Your task to perform on an android device: turn off picture-in-picture Image 0: 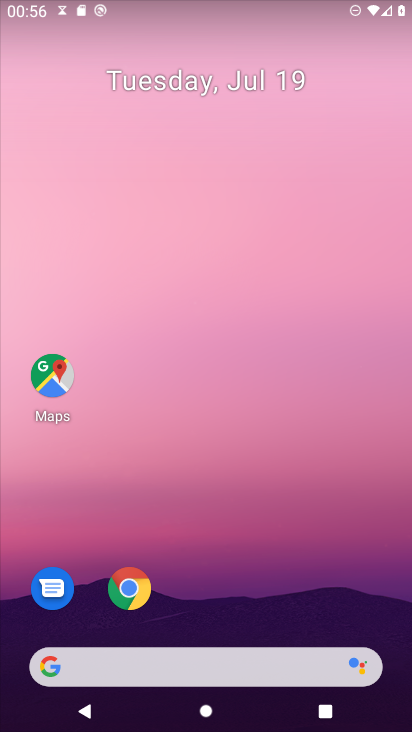
Step 0: press home button
Your task to perform on an android device: turn off picture-in-picture Image 1: 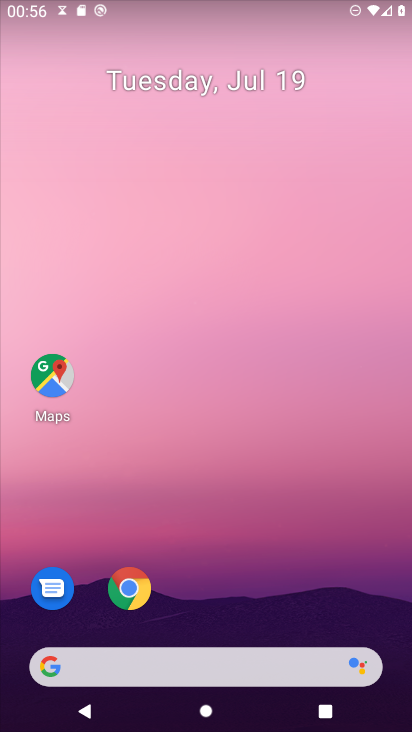
Step 1: drag from (129, 594) to (240, 442)
Your task to perform on an android device: turn off picture-in-picture Image 2: 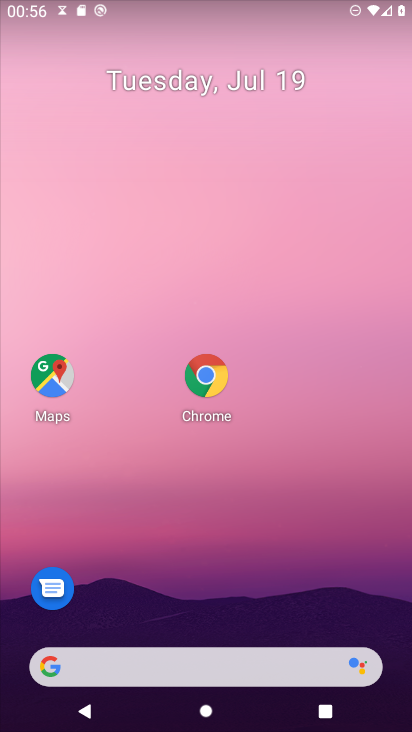
Step 2: click (200, 363)
Your task to perform on an android device: turn off picture-in-picture Image 3: 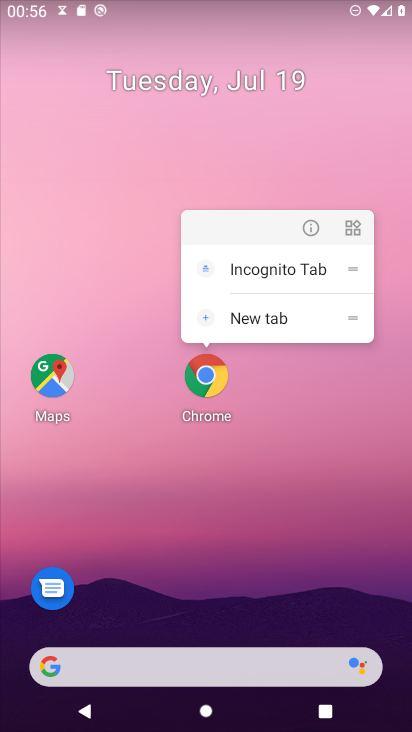
Step 3: click (316, 225)
Your task to perform on an android device: turn off picture-in-picture Image 4: 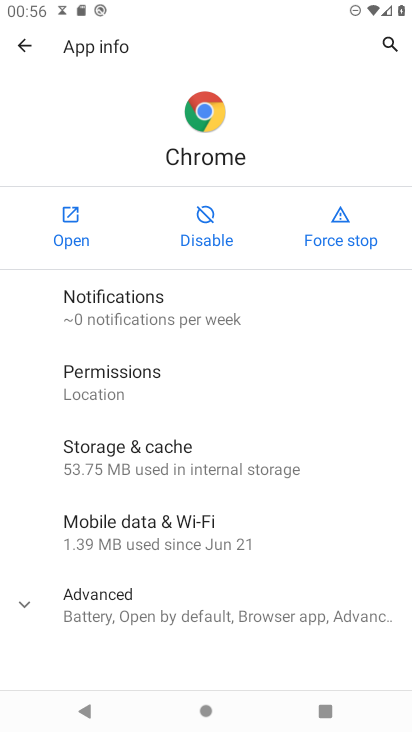
Step 4: click (19, 598)
Your task to perform on an android device: turn off picture-in-picture Image 5: 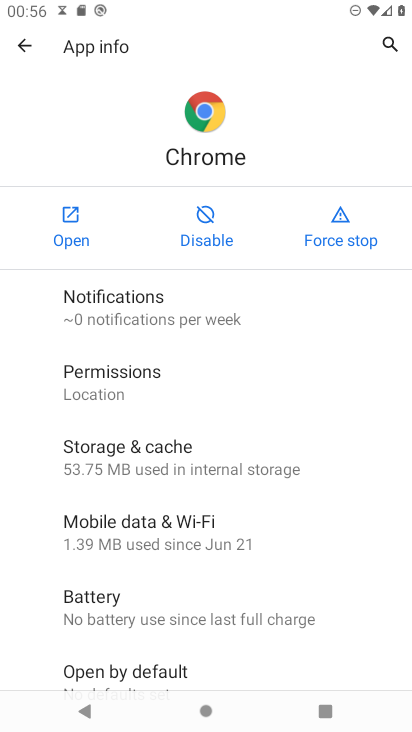
Step 5: drag from (18, 634) to (30, 279)
Your task to perform on an android device: turn off picture-in-picture Image 6: 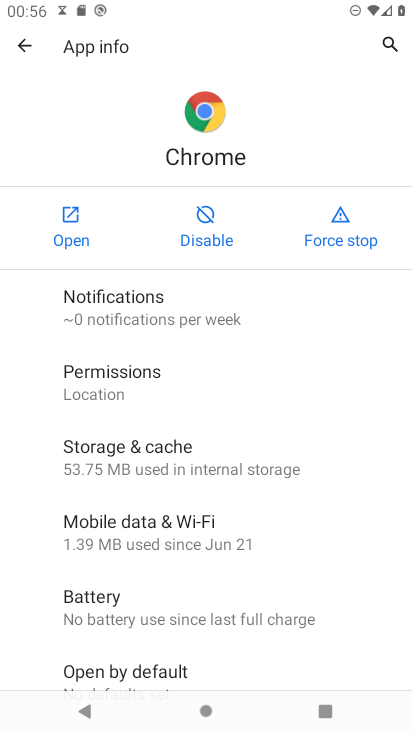
Step 6: drag from (34, 616) to (85, 298)
Your task to perform on an android device: turn off picture-in-picture Image 7: 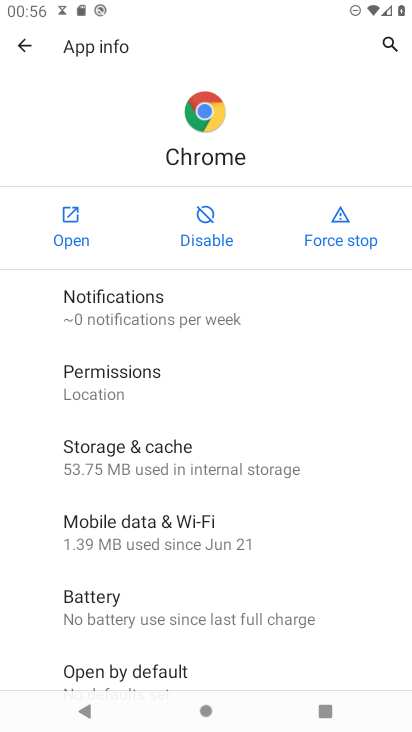
Step 7: drag from (43, 641) to (57, 266)
Your task to perform on an android device: turn off picture-in-picture Image 8: 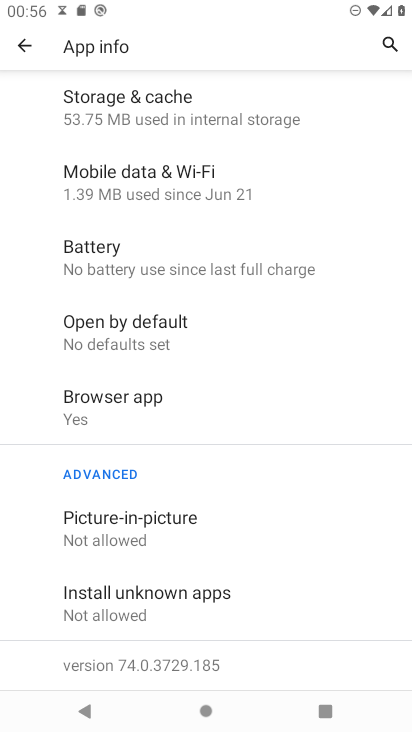
Step 8: click (106, 524)
Your task to perform on an android device: turn off picture-in-picture Image 9: 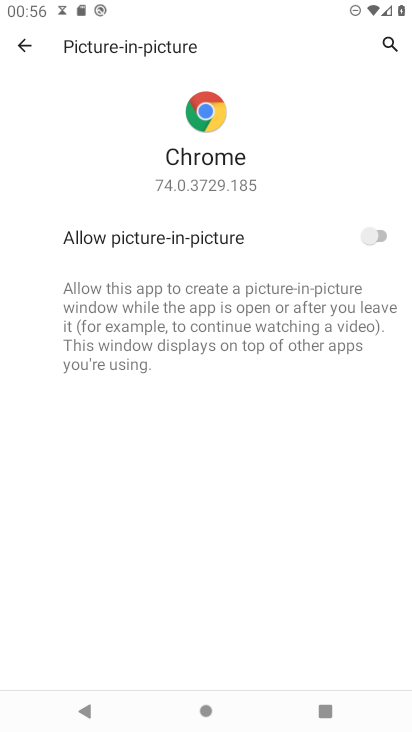
Step 9: task complete